Your task to perform on an android device: open a bookmark in the chrome app Image 0: 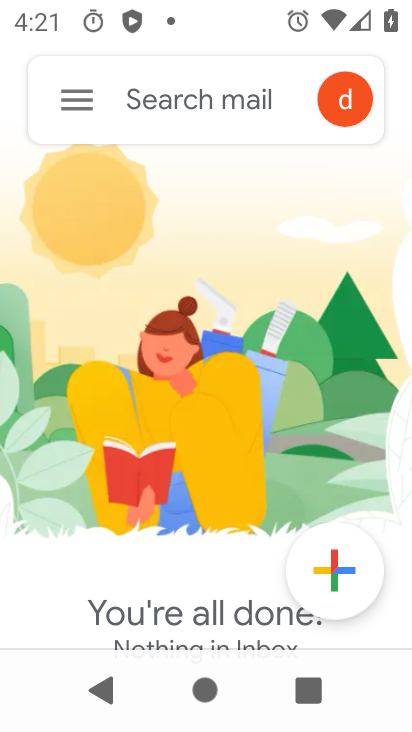
Step 0: press home button
Your task to perform on an android device: open a bookmark in the chrome app Image 1: 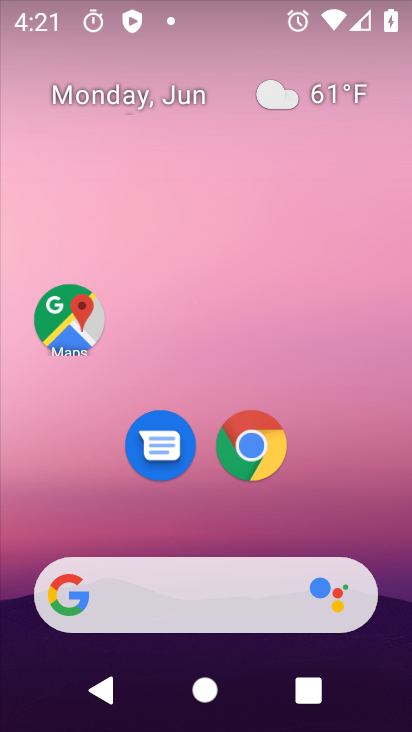
Step 1: click (253, 443)
Your task to perform on an android device: open a bookmark in the chrome app Image 2: 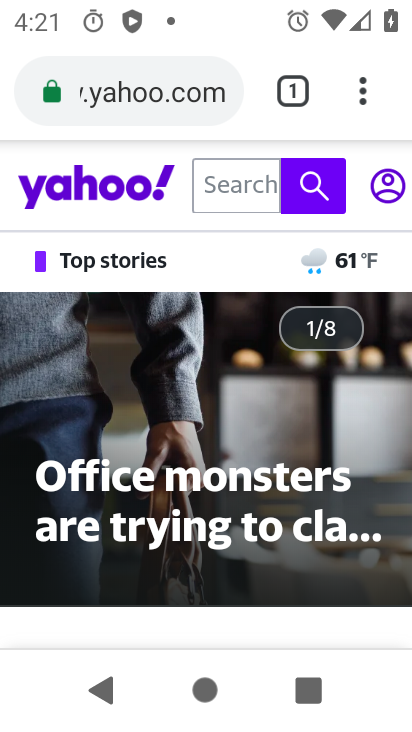
Step 2: press home button
Your task to perform on an android device: open a bookmark in the chrome app Image 3: 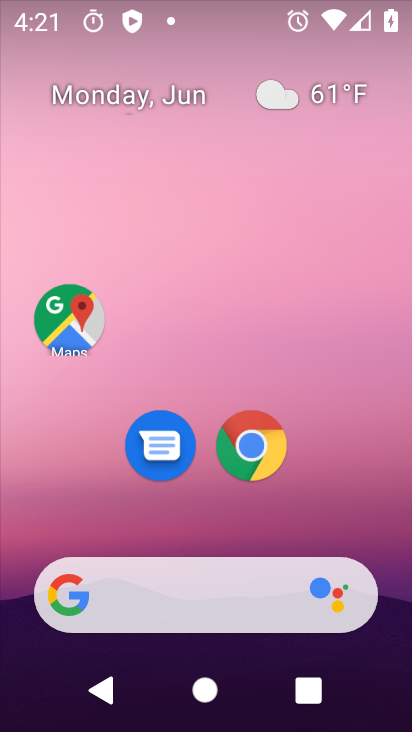
Step 3: click (257, 452)
Your task to perform on an android device: open a bookmark in the chrome app Image 4: 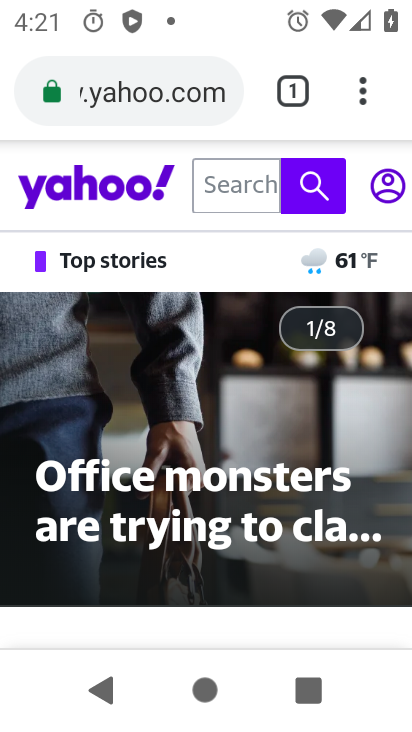
Step 4: click (363, 93)
Your task to perform on an android device: open a bookmark in the chrome app Image 5: 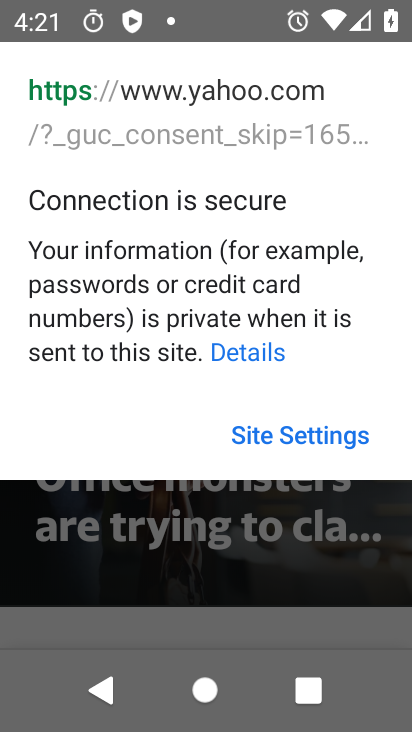
Step 5: click (207, 506)
Your task to perform on an android device: open a bookmark in the chrome app Image 6: 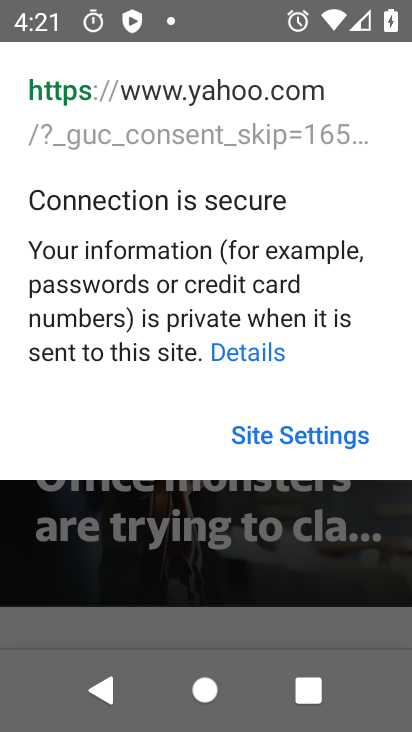
Step 6: click (196, 588)
Your task to perform on an android device: open a bookmark in the chrome app Image 7: 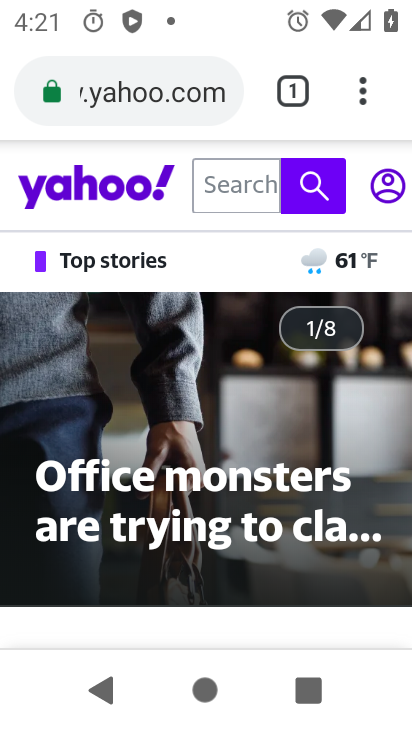
Step 7: click (357, 100)
Your task to perform on an android device: open a bookmark in the chrome app Image 8: 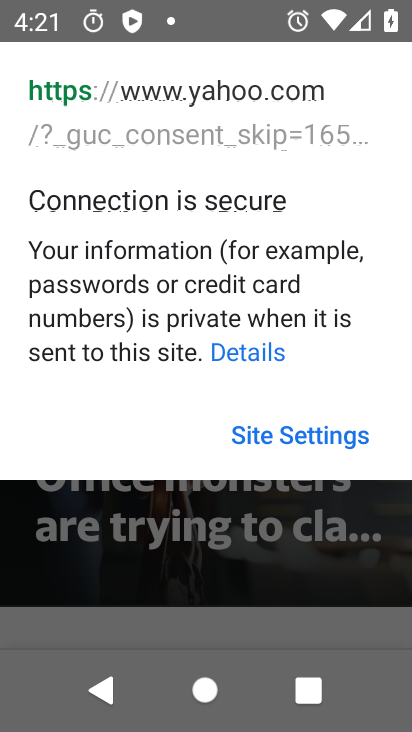
Step 8: click (273, 498)
Your task to perform on an android device: open a bookmark in the chrome app Image 9: 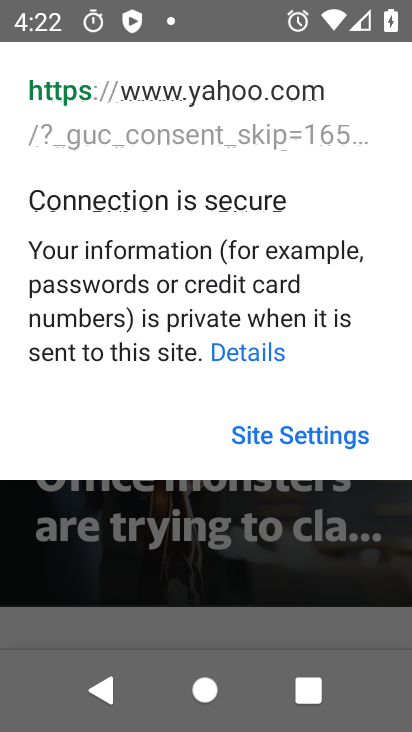
Step 9: click (215, 574)
Your task to perform on an android device: open a bookmark in the chrome app Image 10: 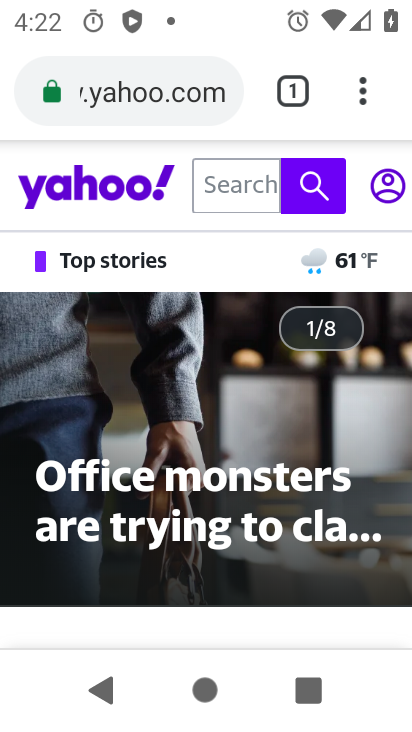
Step 10: click (361, 96)
Your task to perform on an android device: open a bookmark in the chrome app Image 11: 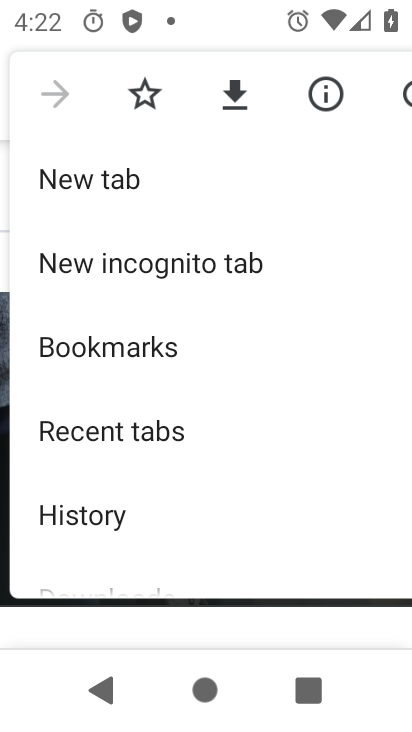
Step 11: click (194, 355)
Your task to perform on an android device: open a bookmark in the chrome app Image 12: 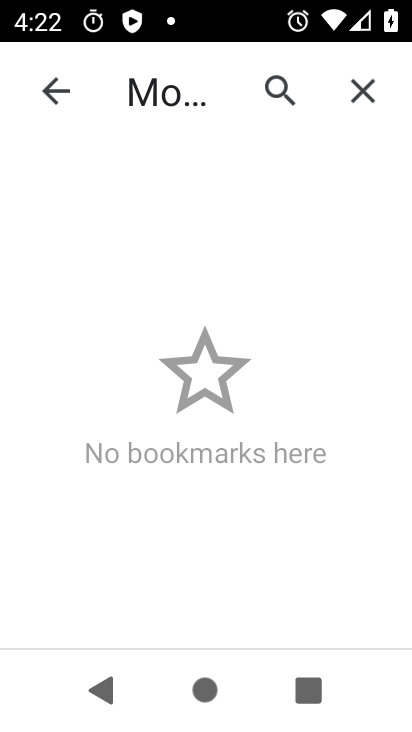
Step 12: task complete